Your task to perform on an android device: toggle pop-ups in chrome Image 0: 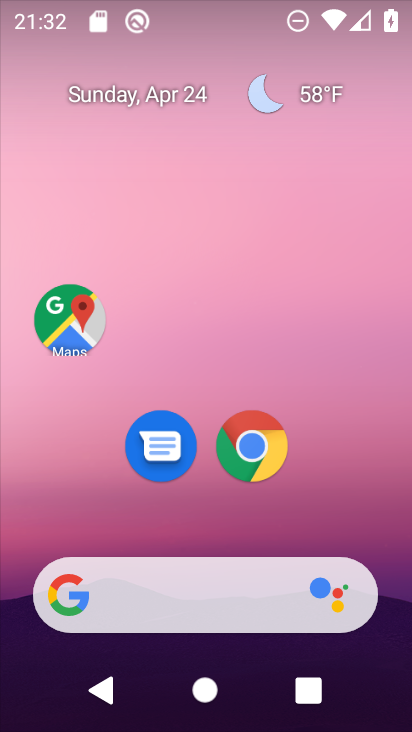
Step 0: click (269, 450)
Your task to perform on an android device: toggle pop-ups in chrome Image 1: 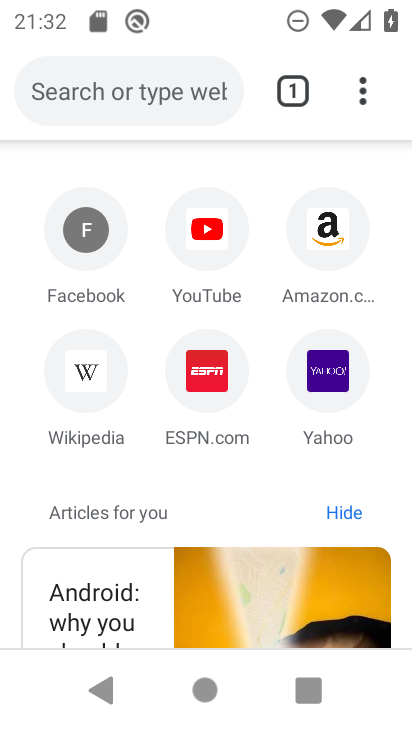
Step 1: drag from (364, 93) to (128, 463)
Your task to perform on an android device: toggle pop-ups in chrome Image 2: 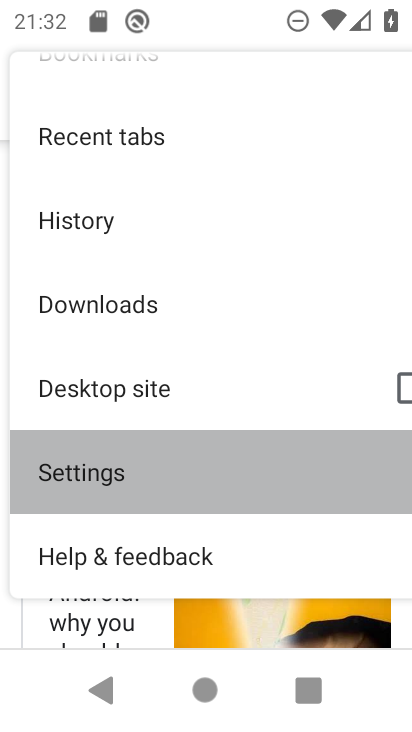
Step 2: click (128, 463)
Your task to perform on an android device: toggle pop-ups in chrome Image 3: 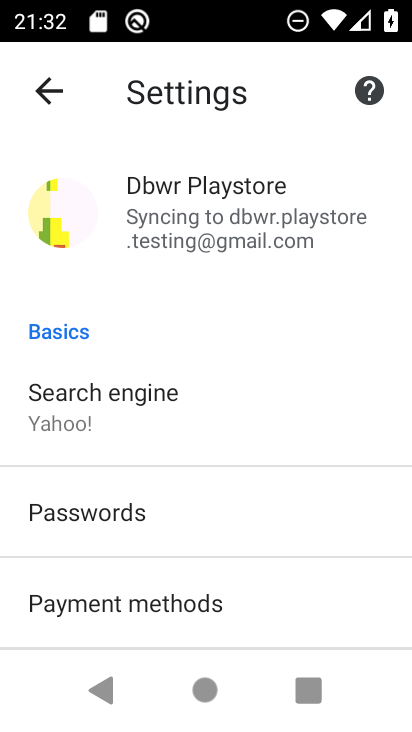
Step 3: drag from (162, 585) to (314, 267)
Your task to perform on an android device: toggle pop-ups in chrome Image 4: 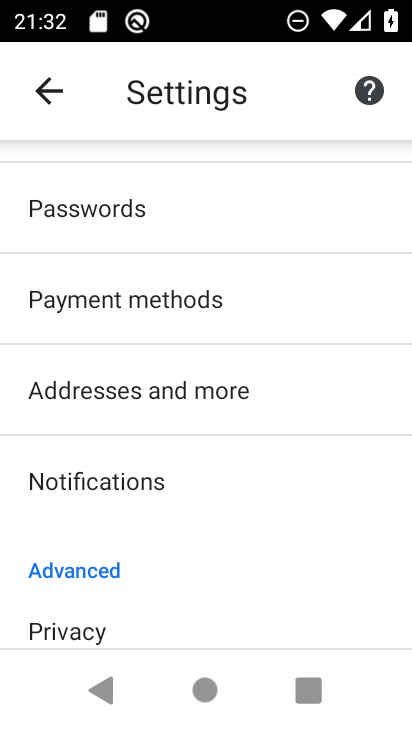
Step 4: drag from (141, 596) to (304, 62)
Your task to perform on an android device: toggle pop-ups in chrome Image 5: 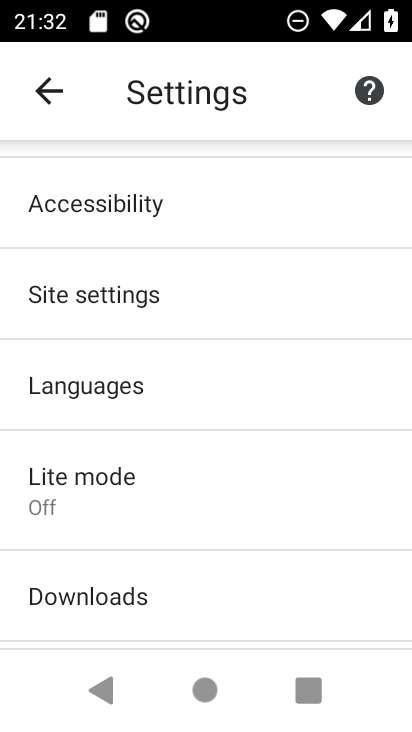
Step 5: click (132, 293)
Your task to perform on an android device: toggle pop-ups in chrome Image 6: 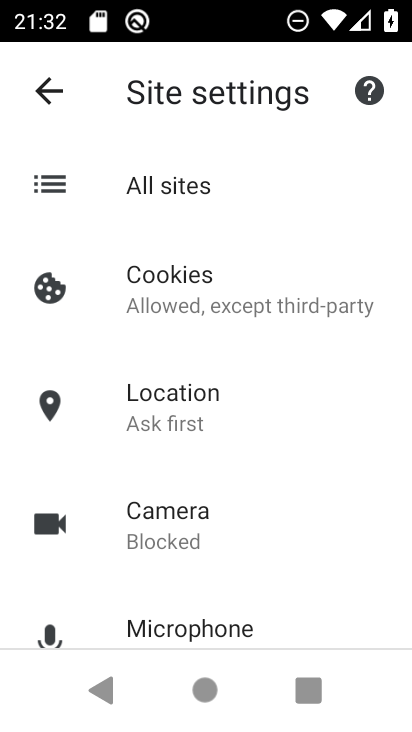
Step 6: drag from (245, 588) to (359, 107)
Your task to perform on an android device: toggle pop-ups in chrome Image 7: 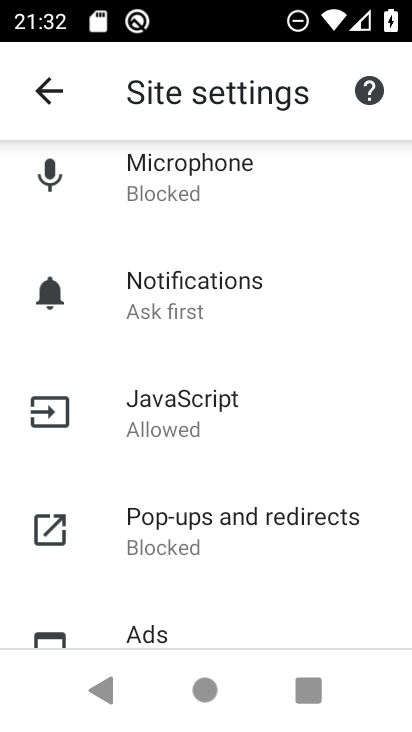
Step 7: click (195, 529)
Your task to perform on an android device: toggle pop-ups in chrome Image 8: 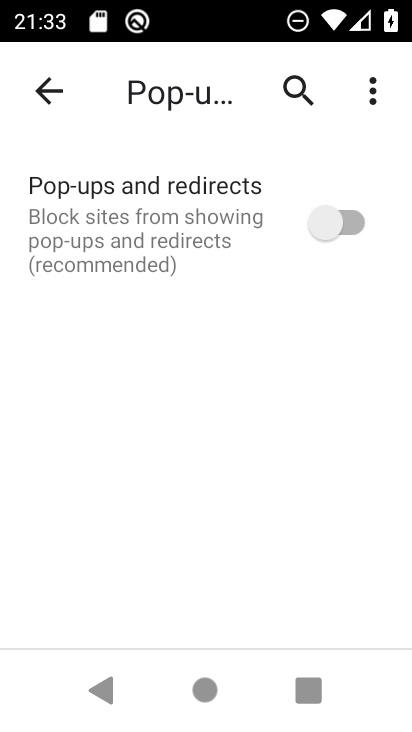
Step 8: click (350, 208)
Your task to perform on an android device: toggle pop-ups in chrome Image 9: 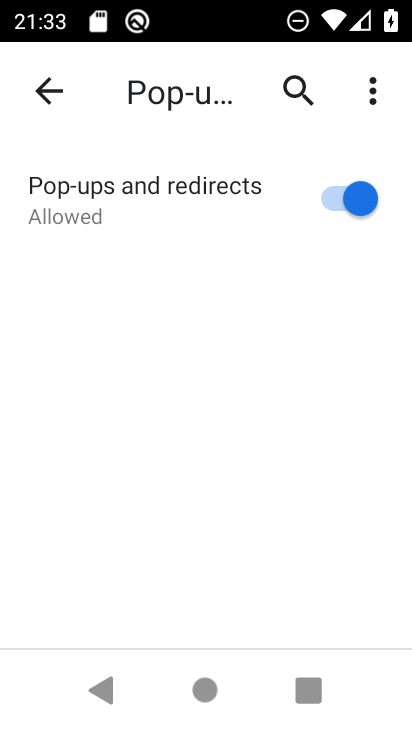
Step 9: task complete